Your task to perform on an android device: make emails show in primary in the gmail app Image 0: 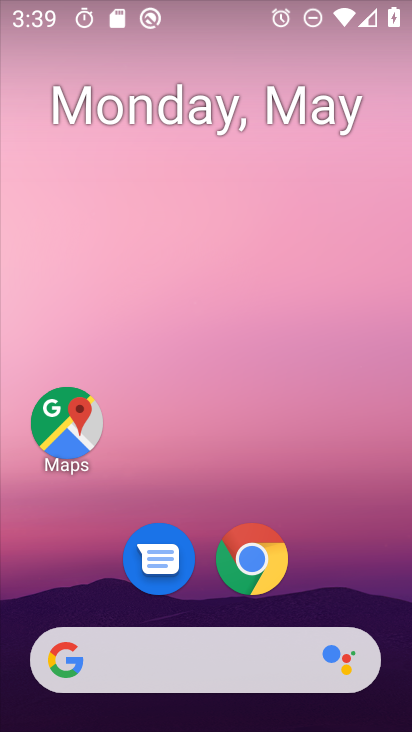
Step 0: drag from (201, 607) to (193, 248)
Your task to perform on an android device: make emails show in primary in the gmail app Image 1: 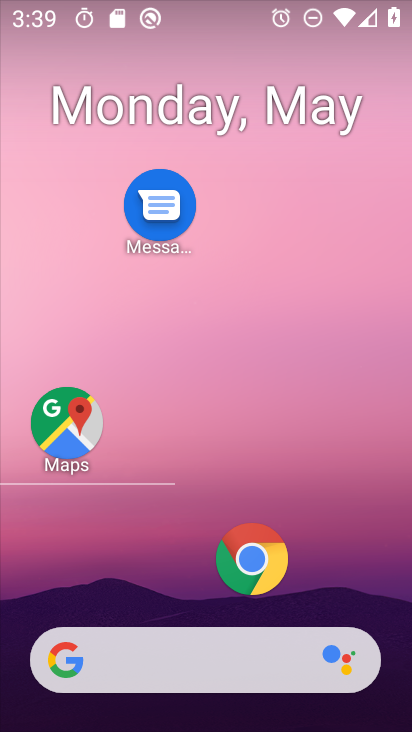
Step 1: drag from (221, 187) to (227, 150)
Your task to perform on an android device: make emails show in primary in the gmail app Image 2: 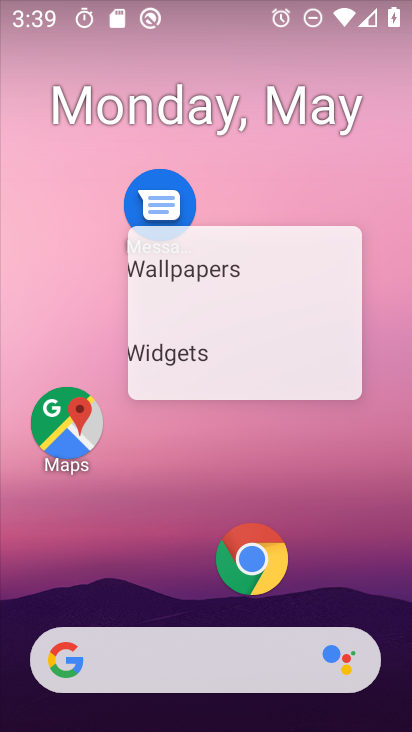
Step 2: click (223, 153)
Your task to perform on an android device: make emails show in primary in the gmail app Image 3: 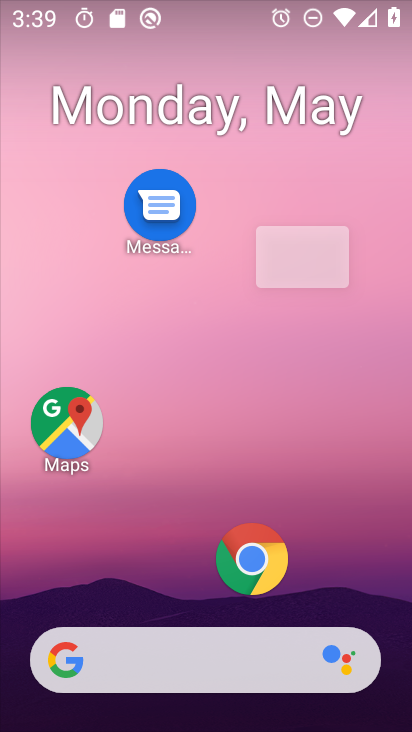
Step 3: drag from (207, 515) to (267, 164)
Your task to perform on an android device: make emails show in primary in the gmail app Image 4: 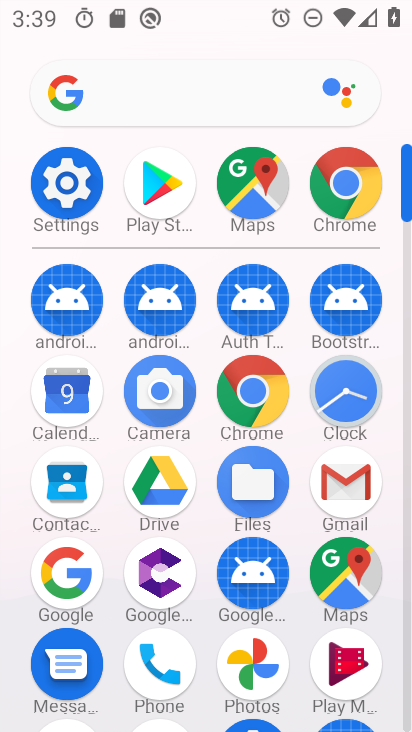
Step 4: click (341, 500)
Your task to perform on an android device: make emails show in primary in the gmail app Image 5: 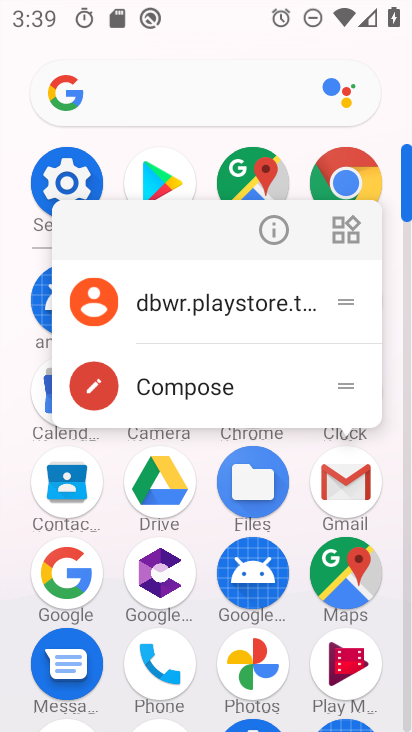
Step 5: click (270, 218)
Your task to perform on an android device: make emails show in primary in the gmail app Image 6: 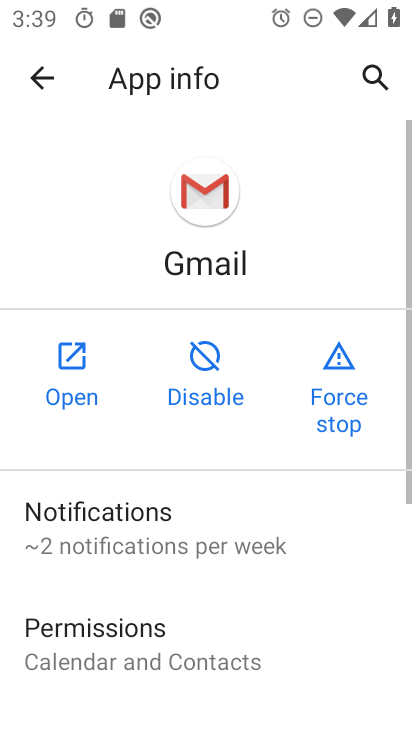
Step 6: click (75, 350)
Your task to perform on an android device: make emails show in primary in the gmail app Image 7: 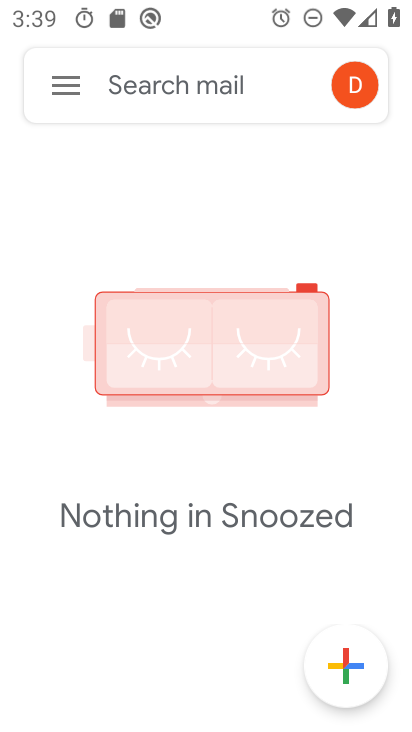
Step 7: click (240, 300)
Your task to perform on an android device: make emails show in primary in the gmail app Image 8: 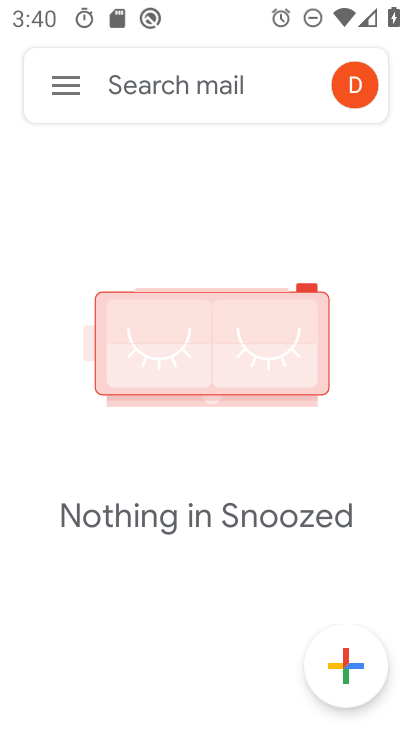
Step 8: drag from (201, 526) to (185, 198)
Your task to perform on an android device: make emails show in primary in the gmail app Image 9: 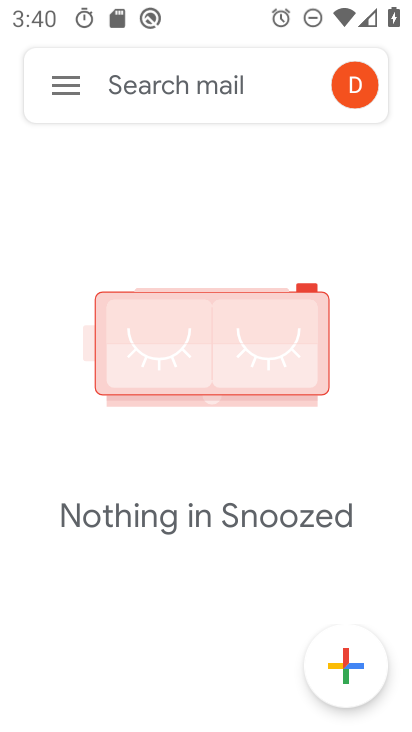
Step 9: click (61, 95)
Your task to perform on an android device: make emails show in primary in the gmail app Image 10: 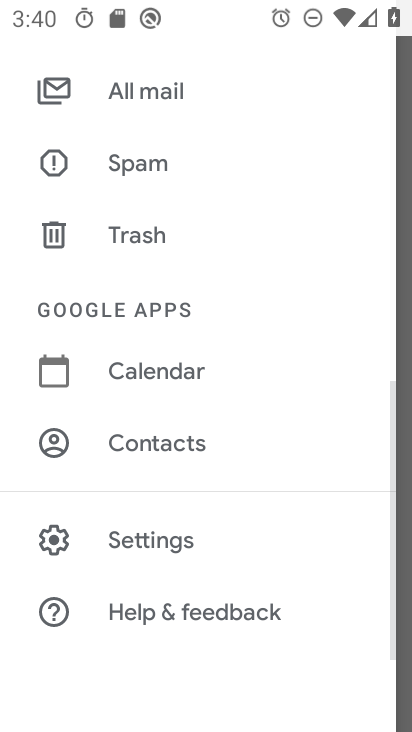
Step 10: drag from (160, 595) to (199, 207)
Your task to perform on an android device: make emails show in primary in the gmail app Image 11: 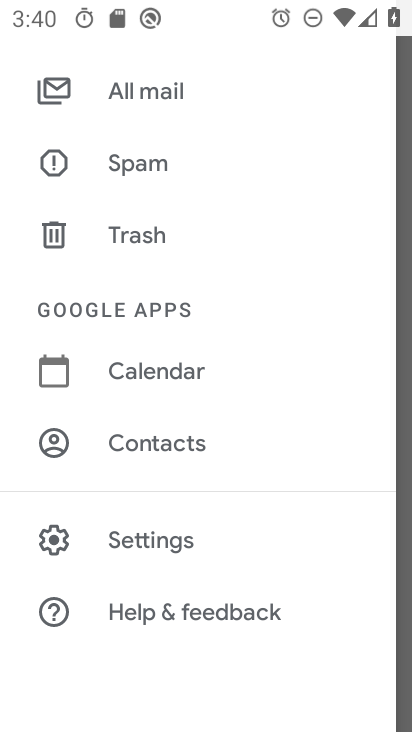
Step 11: drag from (200, 214) to (214, 637)
Your task to perform on an android device: make emails show in primary in the gmail app Image 12: 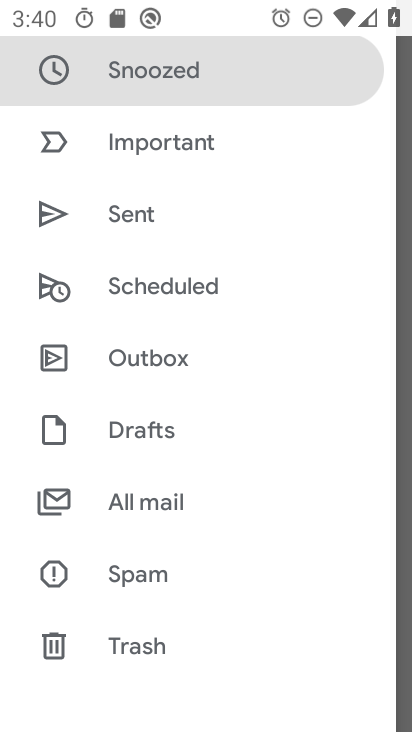
Step 12: drag from (252, 217) to (303, 731)
Your task to perform on an android device: make emails show in primary in the gmail app Image 13: 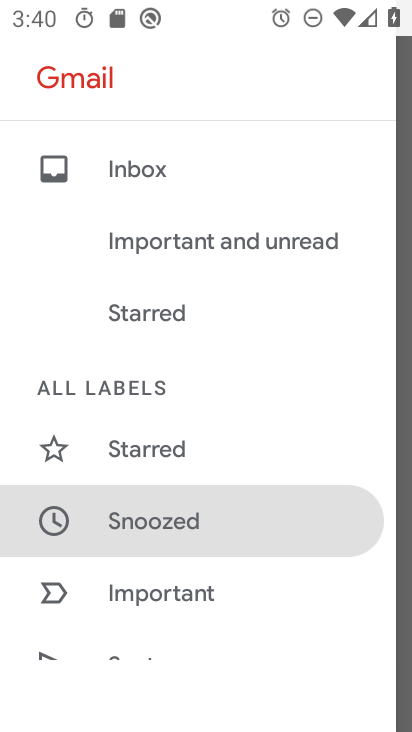
Step 13: drag from (210, 614) to (264, 221)
Your task to perform on an android device: make emails show in primary in the gmail app Image 14: 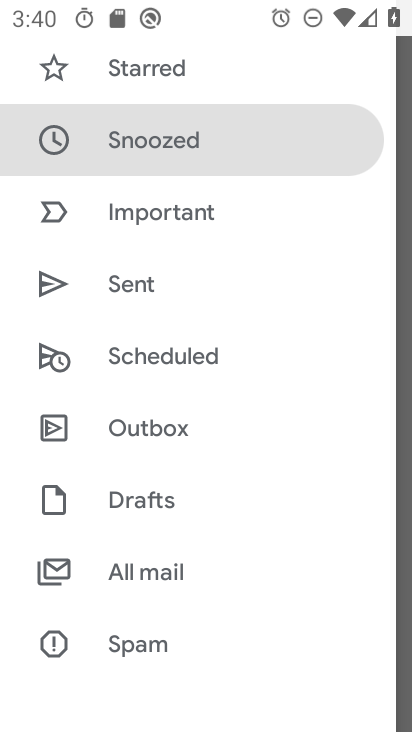
Step 14: drag from (196, 599) to (224, 260)
Your task to perform on an android device: make emails show in primary in the gmail app Image 15: 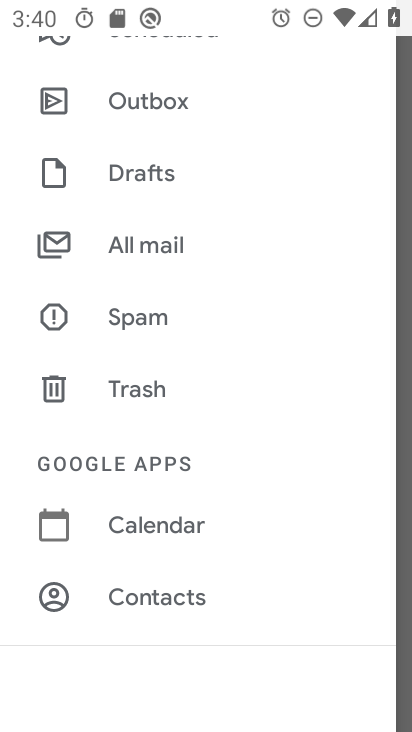
Step 15: drag from (196, 167) to (233, 728)
Your task to perform on an android device: make emails show in primary in the gmail app Image 16: 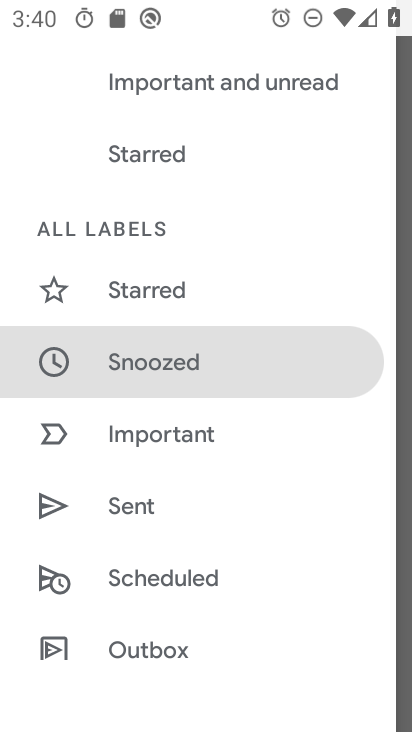
Step 16: drag from (222, 276) to (255, 523)
Your task to perform on an android device: make emails show in primary in the gmail app Image 17: 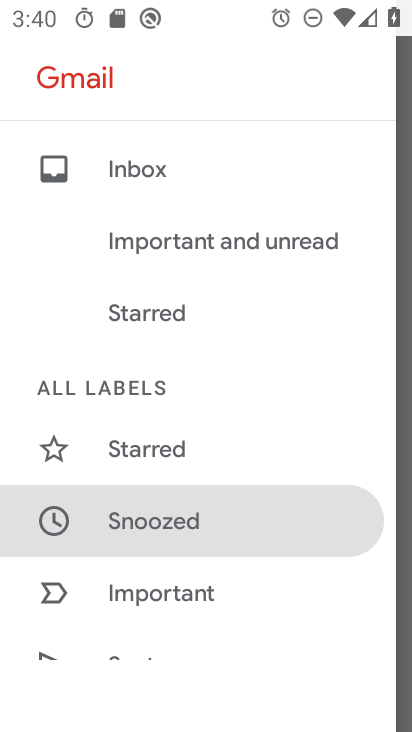
Step 17: drag from (192, 244) to (272, 617)
Your task to perform on an android device: make emails show in primary in the gmail app Image 18: 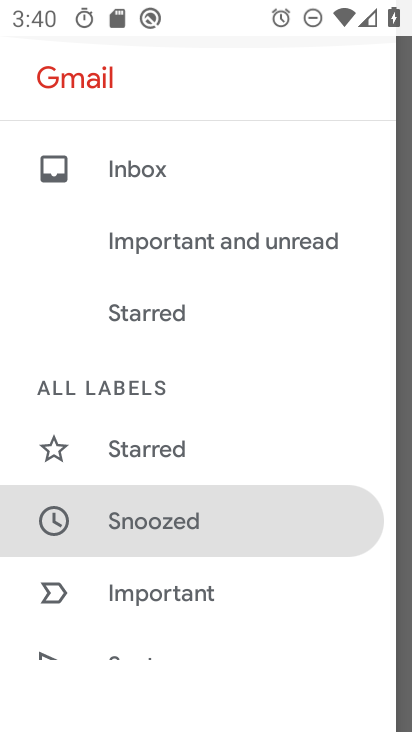
Step 18: drag from (255, 589) to (297, 269)
Your task to perform on an android device: make emails show in primary in the gmail app Image 19: 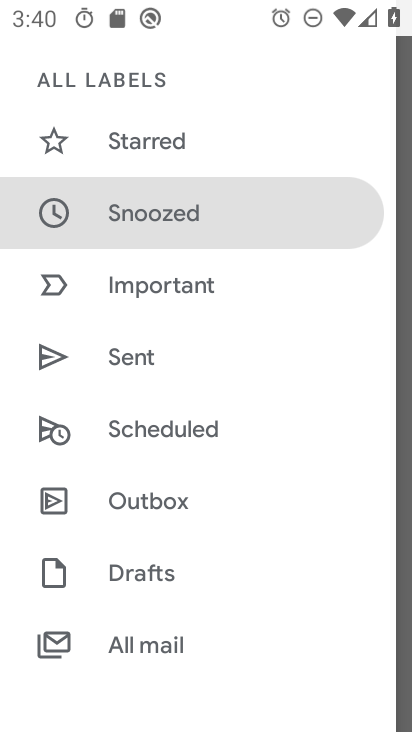
Step 19: drag from (160, 605) to (199, 249)
Your task to perform on an android device: make emails show in primary in the gmail app Image 20: 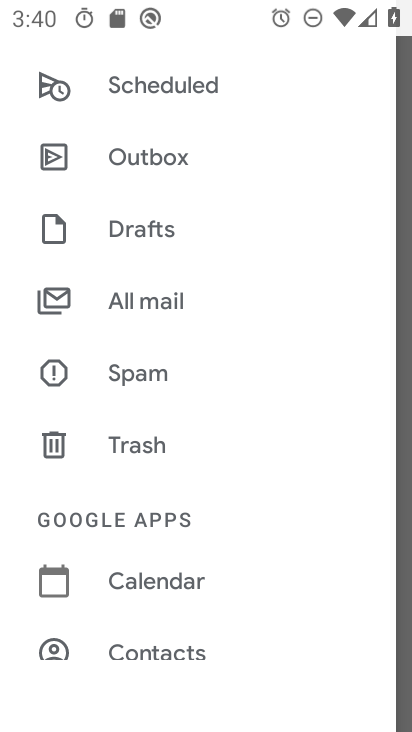
Step 20: drag from (190, 541) to (208, 252)
Your task to perform on an android device: make emails show in primary in the gmail app Image 21: 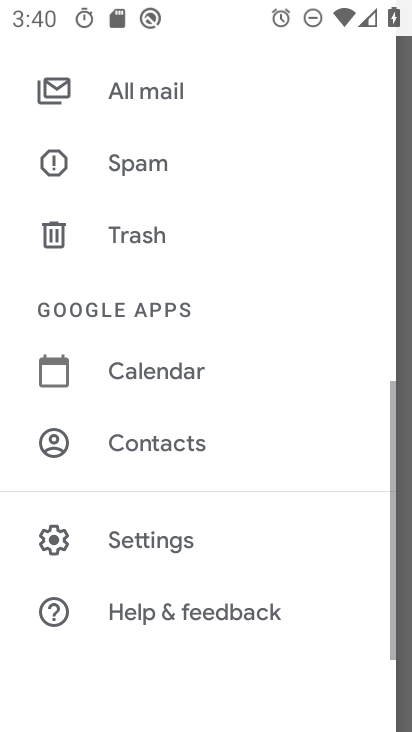
Step 21: drag from (198, 554) to (240, 189)
Your task to perform on an android device: make emails show in primary in the gmail app Image 22: 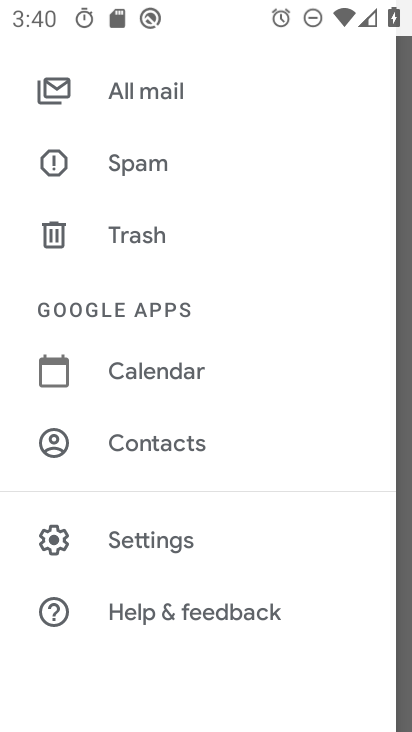
Step 22: drag from (232, 259) to (317, 597)
Your task to perform on an android device: make emails show in primary in the gmail app Image 23: 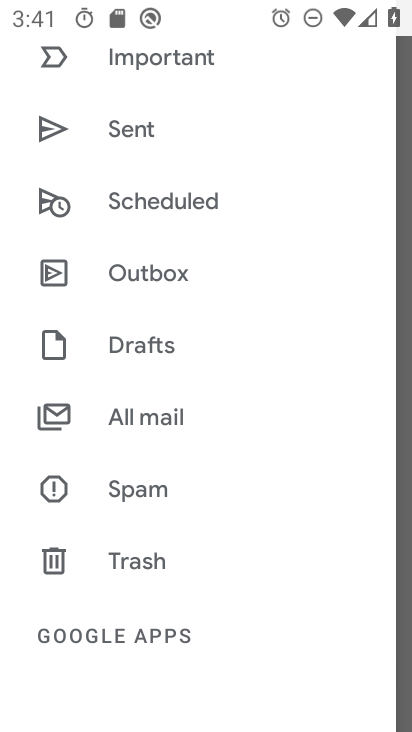
Step 23: drag from (208, 167) to (390, 721)
Your task to perform on an android device: make emails show in primary in the gmail app Image 24: 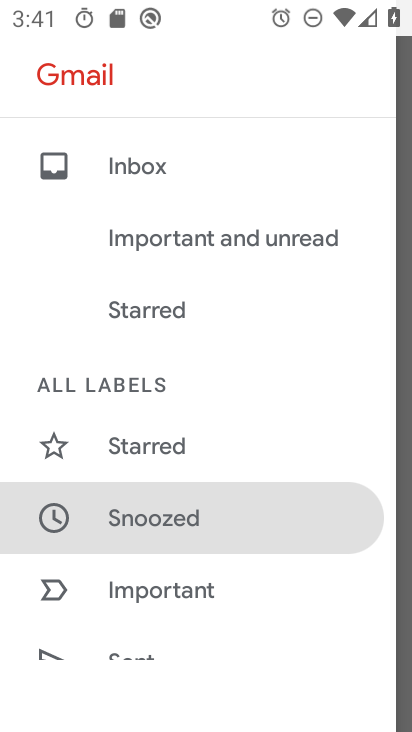
Step 24: click (195, 177)
Your task to perform on an android device: make emails show in primary in the gmail app Image 25: 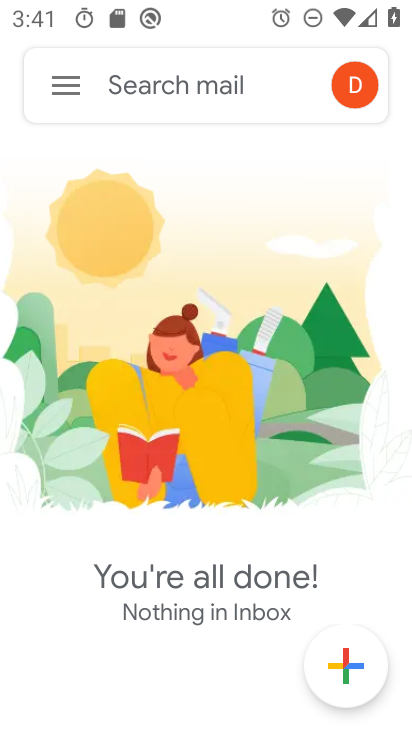
Step 25: task complete